Your task to perform on an android device: turn vacation reply on in the gmail app Image 0: 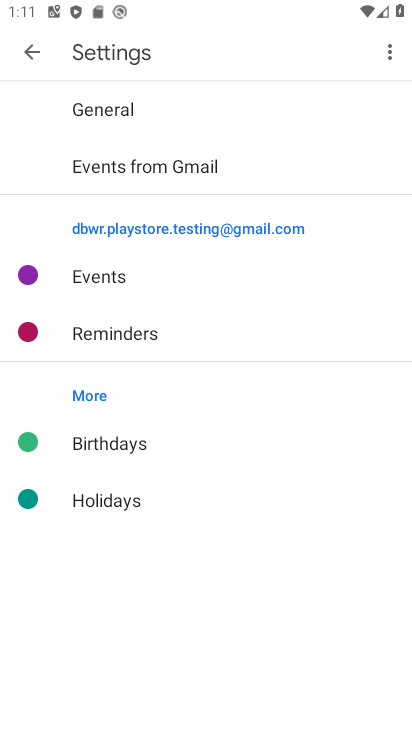
Step 0: press back button
Your task to perform on an android device: turn vacation reply on in the gmail app Image 1: 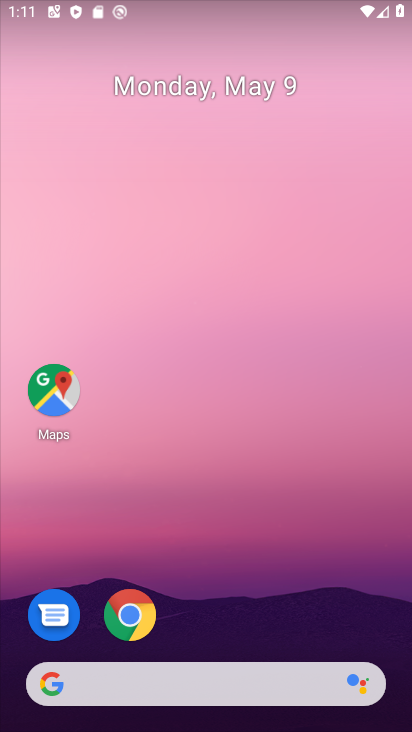
Step 1: drag from (274, 573) to (248, 78)
Your task to perform on an android device: turn vacation reply on in the gmail app Image 2: 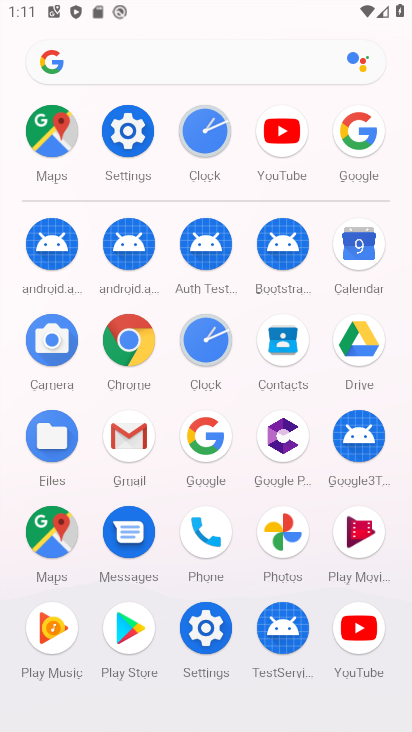
Step 2: click (130, 437)
Your task to perform on an android device: turn vacation reply on in the gmail app Image 3: 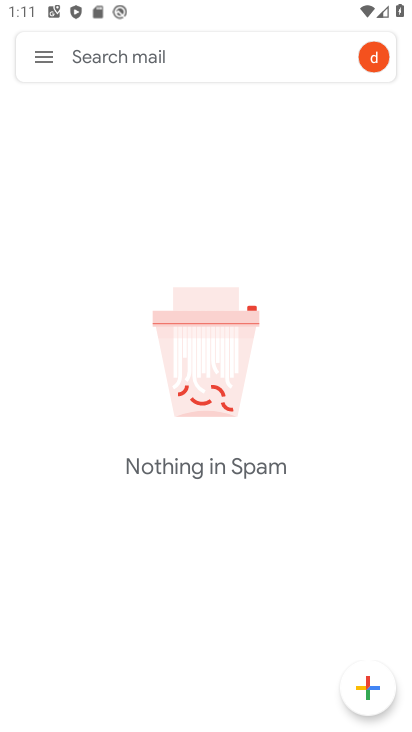
Step 3: click (43, 58)
Your task to perform on an android device: turn vacation reply on in the gmail app Image 4: 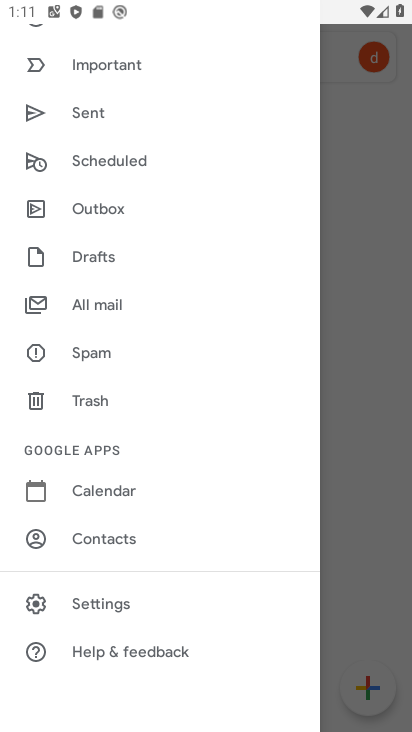
Step 4: click (92, 606)
Your task to perform on an android device: turn vacation reply on in the gmail app Image 5: 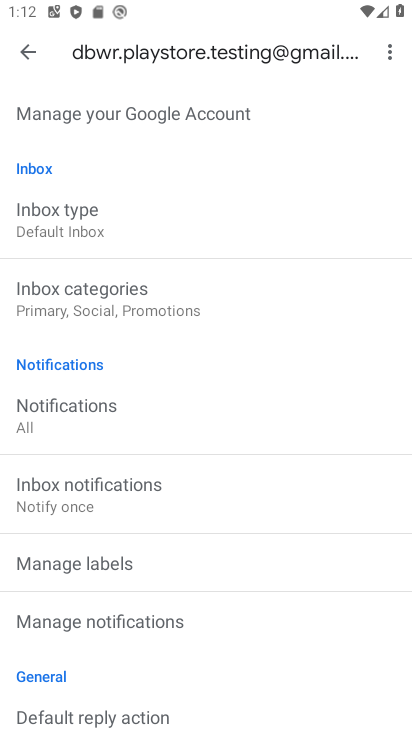
Step 5: drag from (177, 410) to (196, 315)
Your task to perform on an android device: turn vacation reply on in the gmail app Image 6: 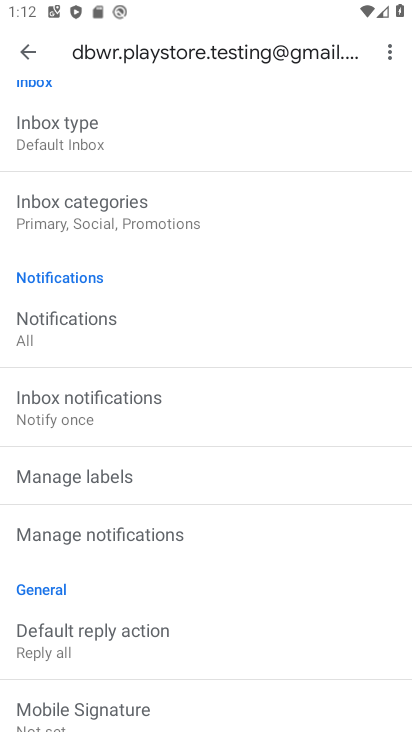
Step 6: drag from (110, 569) to (161, 464)
Your task to perform on an android device: turn vacation reply on in the gmail app Image 7: 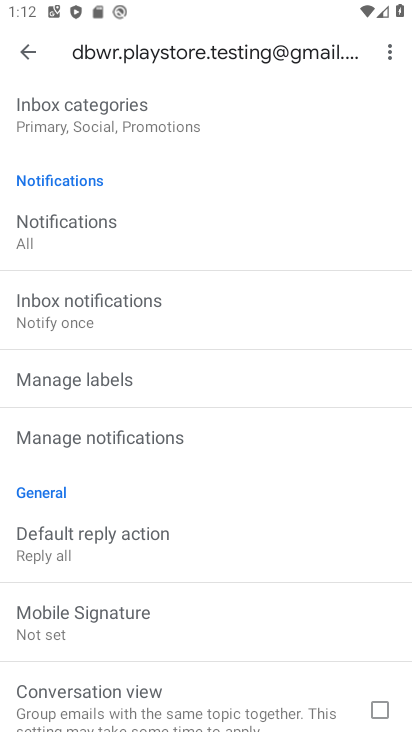
Step 7: drag from (98, 583) to (158, 486)
Your task to perform on an android device: turn vacation reply on in the gmail app Image 8: 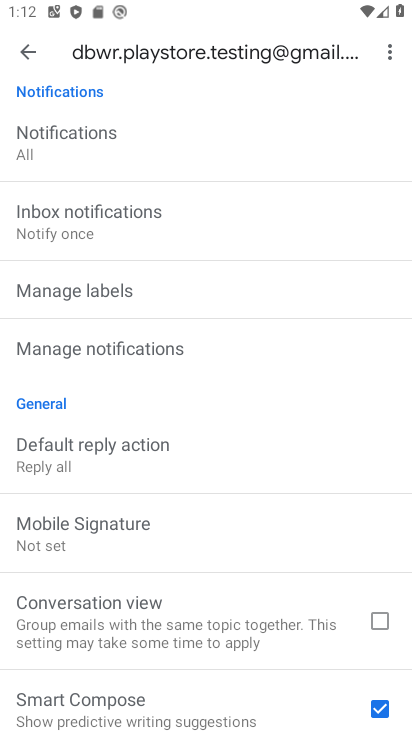
Step 8: drag from (101, 560) to (172, 464)
Your task to perform on an android device: turn vacation reply on in the gmail app Image 9: 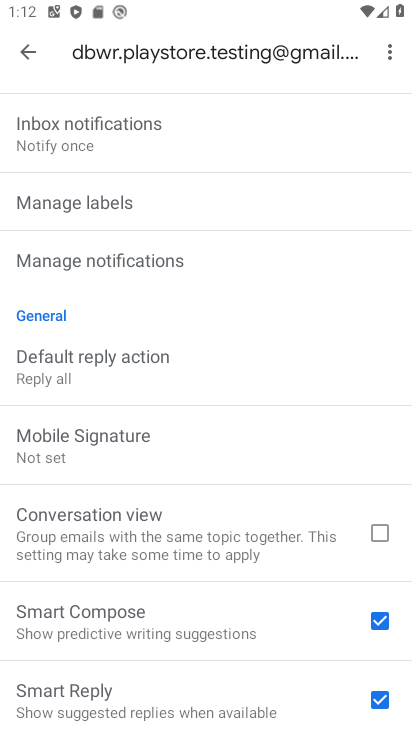
Step 9: drag from (86, 591) to (184, 479)
Your task to perform on an android device: turn vacation reply on in the gmail app Image 10: 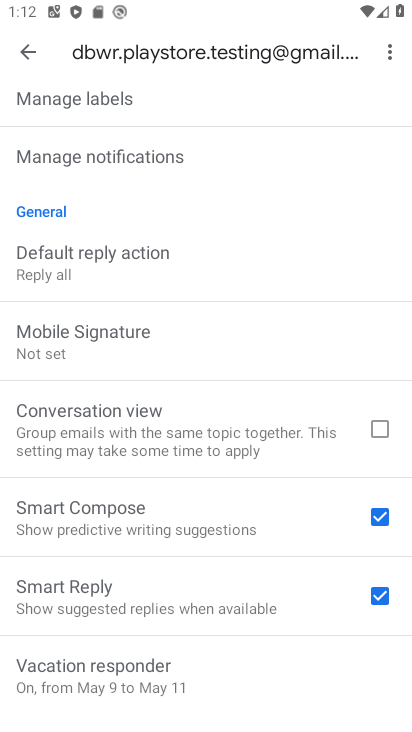
Step 10: drag from (98, 631) to (202, 513)
Your task to perform on an android device: turn vacation reply on in the gmail app Image 11: 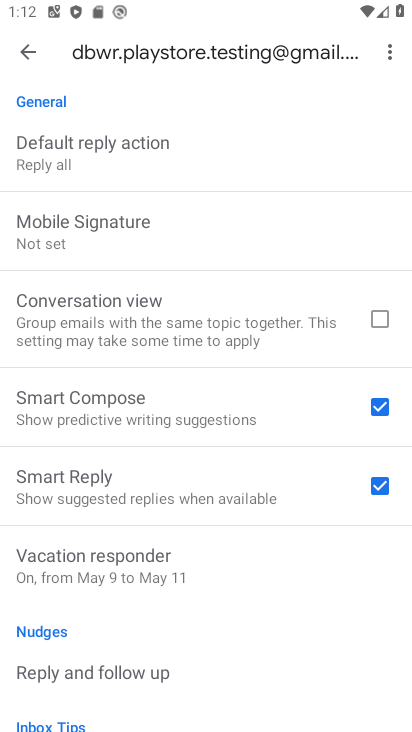
Step 11: click (117, 553)
Your task to perform on an android device: turn vacation reply on in the gmail app Image 12: 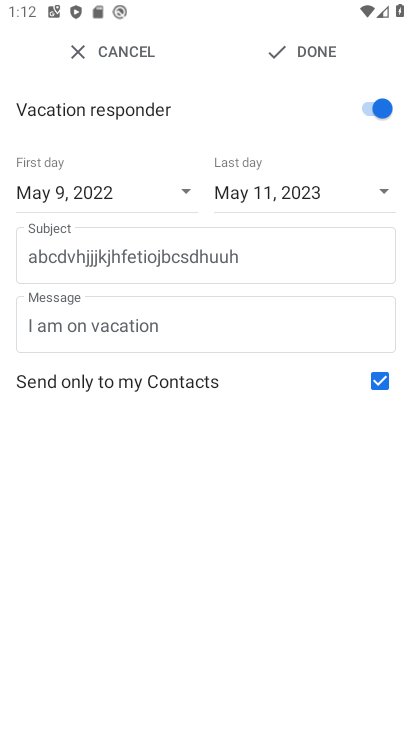
Step 12: task complete